Your task to perform on an android device: Open Maps and search for coffee Image 0: 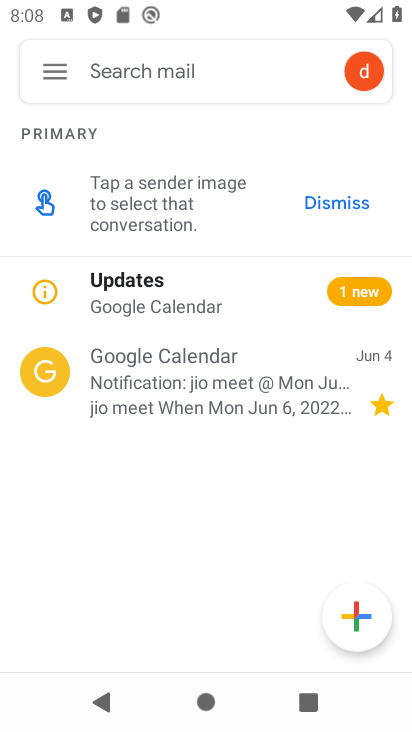
Step 0: press home button
Your task to perform on an android device: Open Maps and search for coffee Image 1: 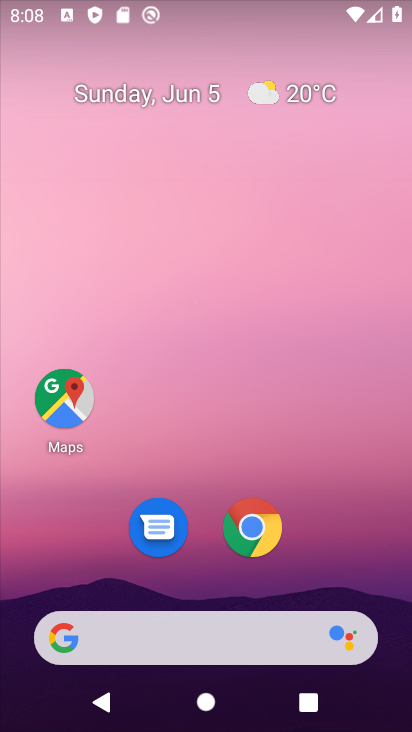
Step 1: click (41, 390)
Your task to perform on an android device: Open Maps and search for coffee Image 2: 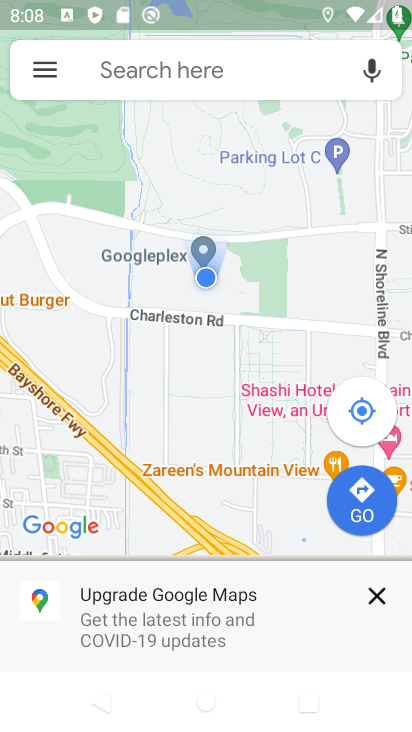
Step 2: click (223, 71)
Your task to perform on an android device: Open Maps and search for coffee Image 3: 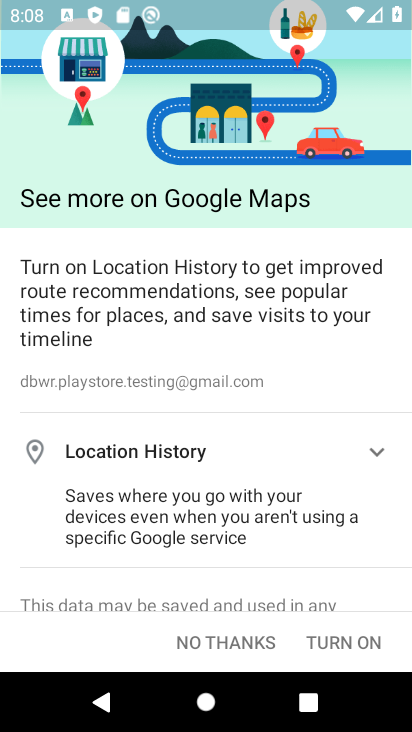
Step 3: click (347, 633)
Your task to perform on an android device: Open Maps and search for coffee Image 4: 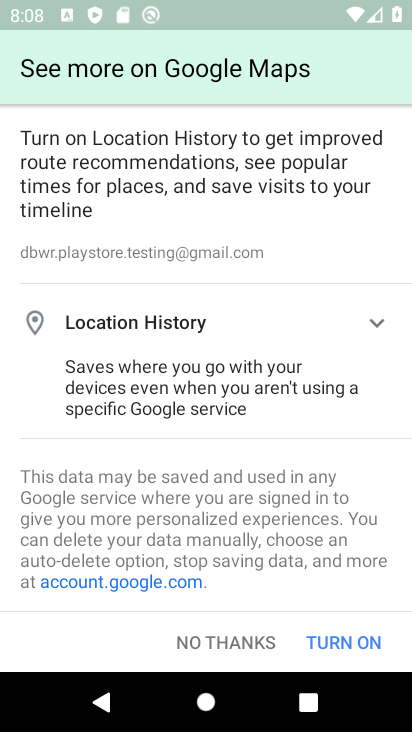
Step 4: click (347, 633)
Your task to perform on an android device: Open Maps and search for coffee Image 5: 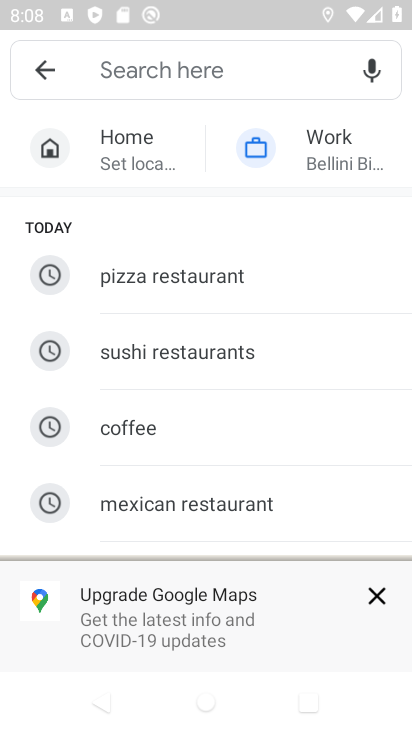
Step 5: click (187, 72)
Your task to perform on an android device: Open Maps and search for coffee Image 6: 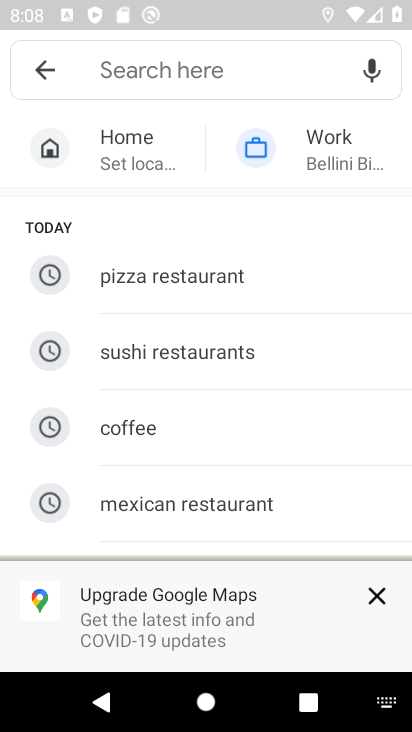
Step 6: click (196, 419)
Your task to perform on an android device: Open Maps and search for coffee Image 7: 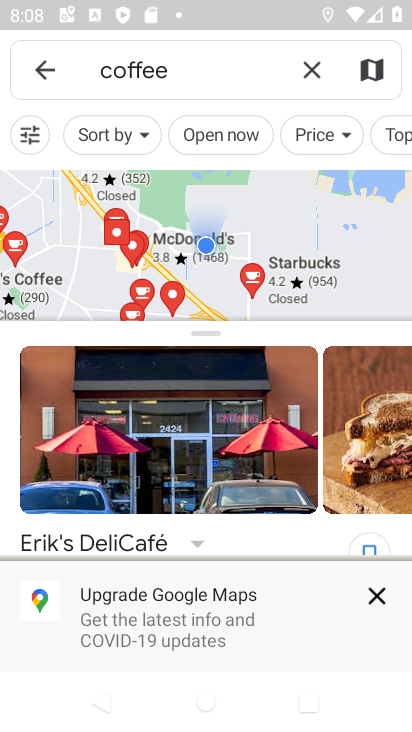
Step 7: task complete